Your task to perform on an android device: Open calendar and show me the second week of next month Image 0: 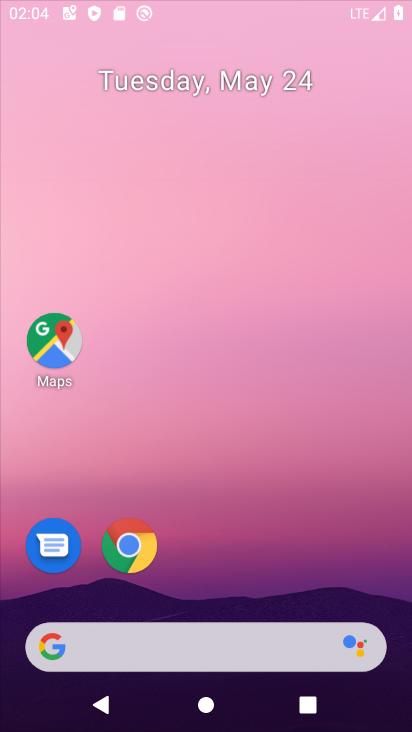
Step 0: drag from (206, 583) to (218, 4)
Your task to perform on an android device: Open calendar and show me the second week of next month Image 1: 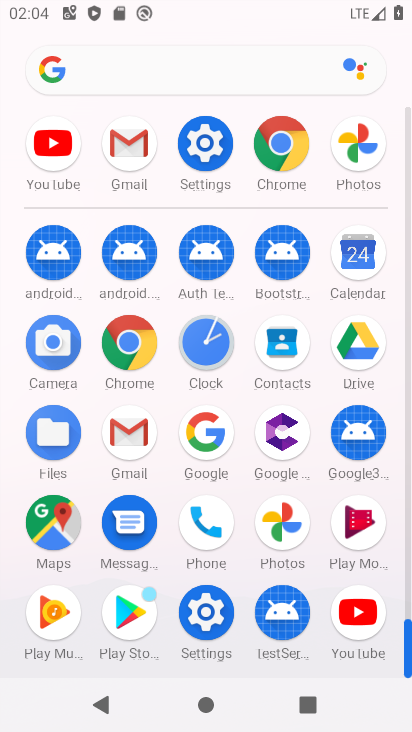
Step 1: click (349, 252)
Your task to perform on an android device: Open calendar and show me the second week of next month Image 2: 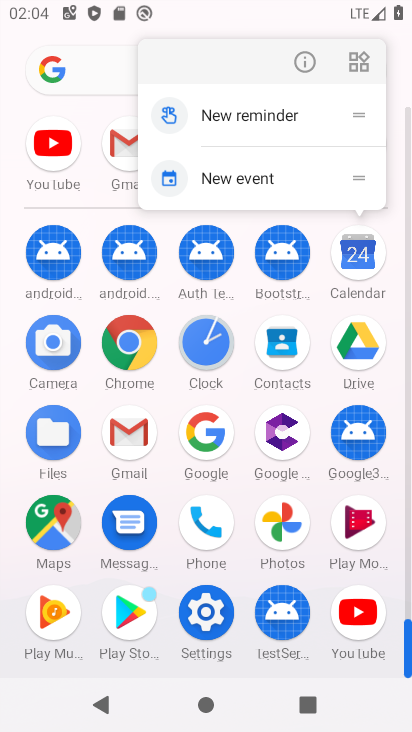
Step 2: click (294, 58)
Your task to perform on an android device: Open calendar and show me the second week of next month Image 3: 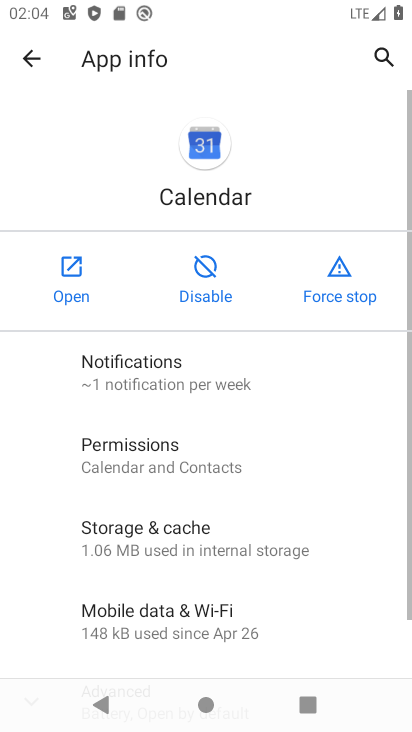
Step 3: click (45, 286)
Your task to perform on an android device: Open calendar and show me the second week of next month Image 4: 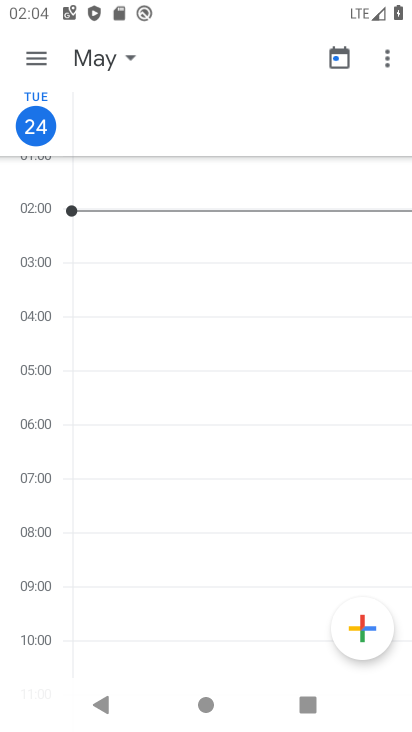
Step 4: click (95, 57)
Your task to perform on an android device: Open calendar and show me the second week of next month Image 5: 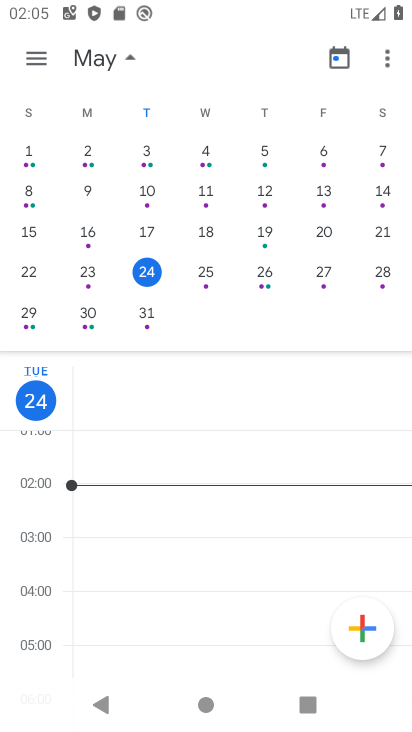
Step 5: drag from (364, 204) to (1, 207)
Your task to perform on an android device: Open calendar and show me the second week of next month Image 6: 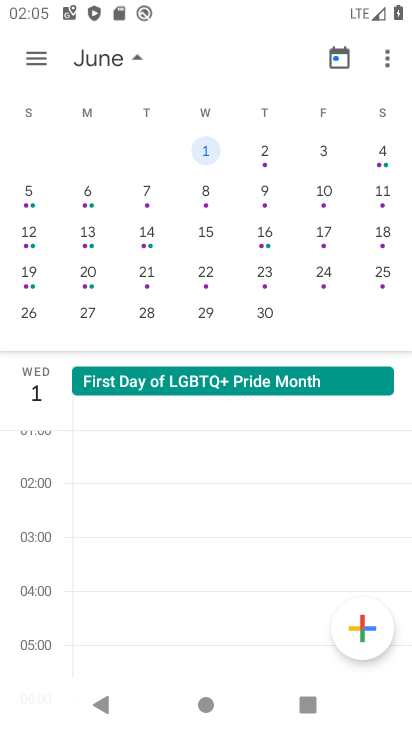
Step 6: click (196, 196)
Your task to perform on an android device: Open calendar and show me the second week of next month Image 7: 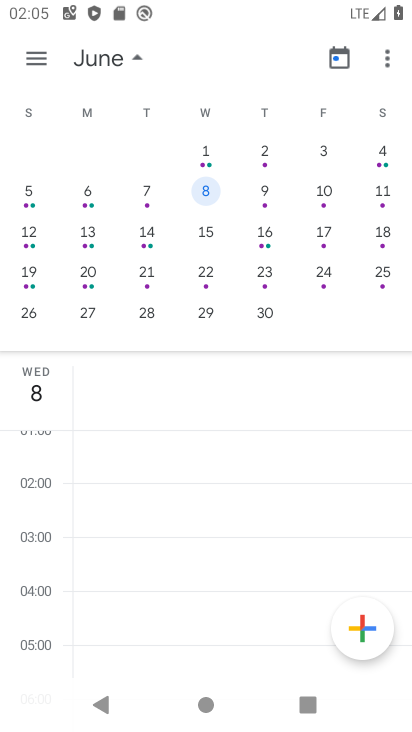
Step 7: task complete